Your task to perform on an android device: set default search engine in the chrome app Image 0: 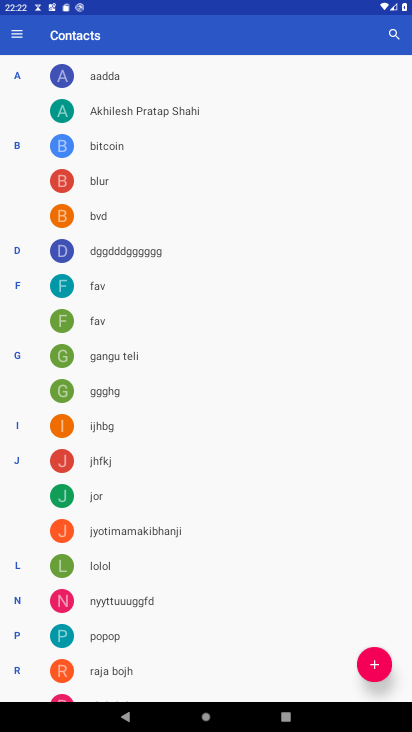
Step 0: press home button
Your task to perform on an android device: set default search engine in the chrome app Image 1: 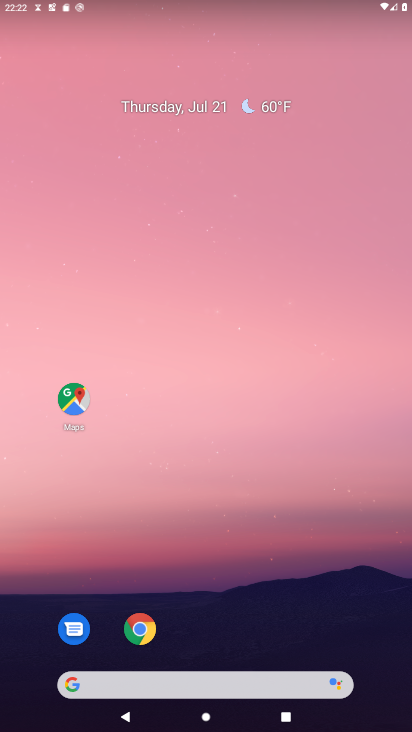
Step 1: drag from (232, 621) to (226, 392)
Your task to perform on an android device: set default search engine in the chrome app Image 2: 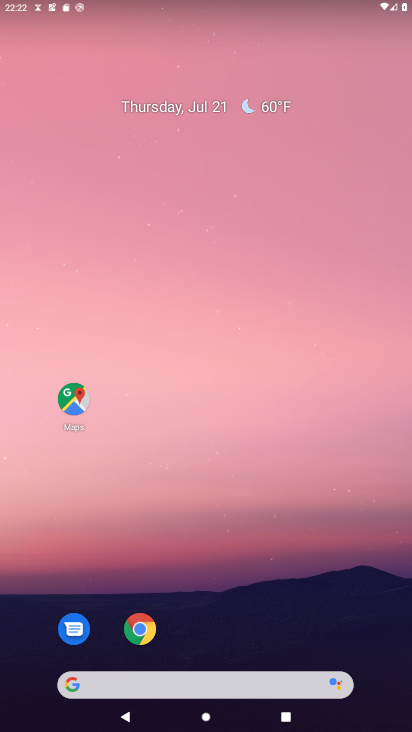
Step 2: drag from (198, 666) to (259, 79)
Your task to perform on an android device: set default search engine in the chrome app Image 3: 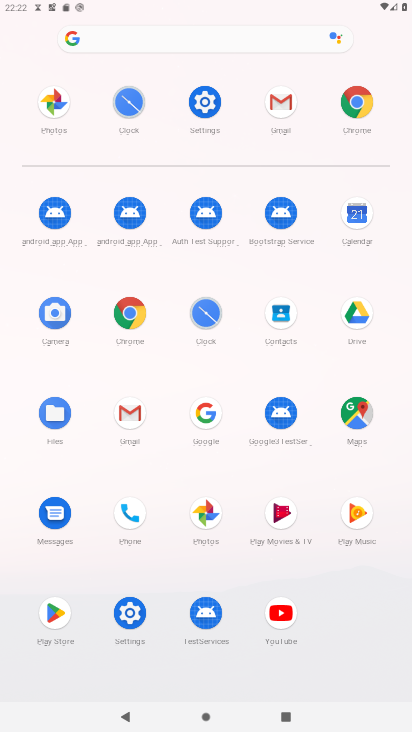
Step 3: click (355, 99)
Your task to perform on an android device: set default search engine in the chrome app Image 4: 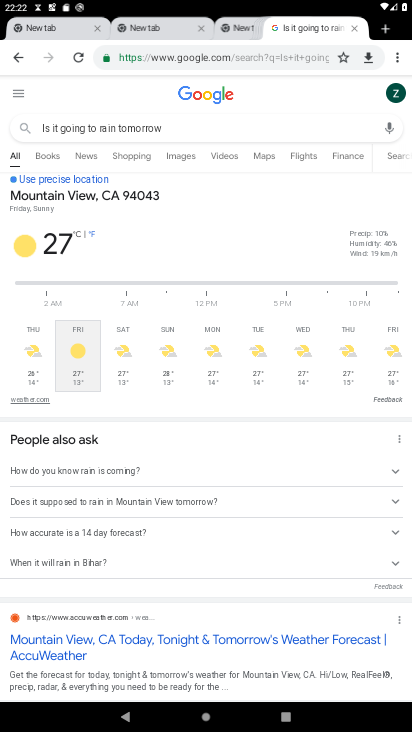
Step 4: click (400, 56)
Your task to perform on an android device: set default search engine in the chrome app Image 5: 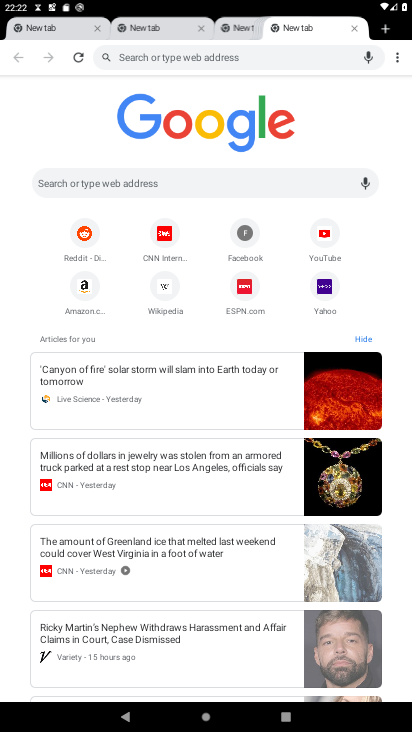
Step 5: click (400, 56)
Your task to perform on an android device: set default search engine in the chrome app Image 6: 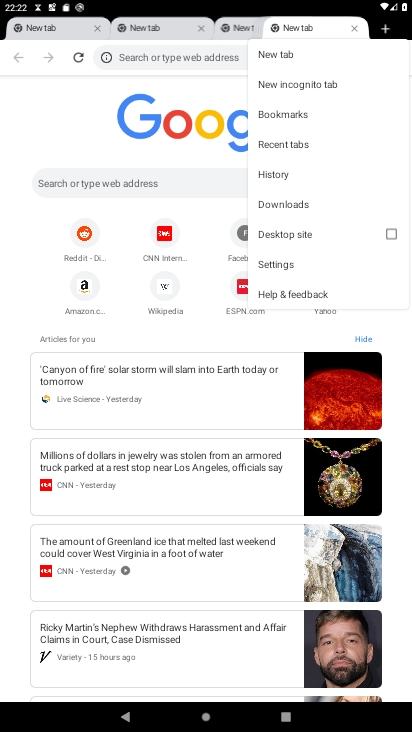
Step 6: click (279, 255)
Your task to perform on an android device: set default search engine in the chrome app Image 7: 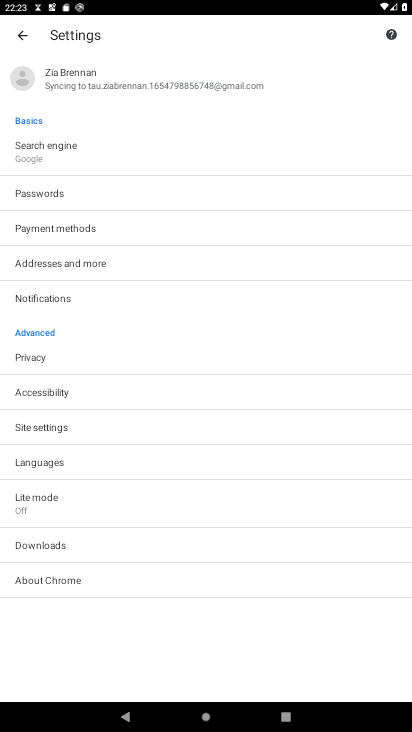
Step 7: click (76, 152)
Your task to perform on an android device: set default search engine in the chrome app Image 8: 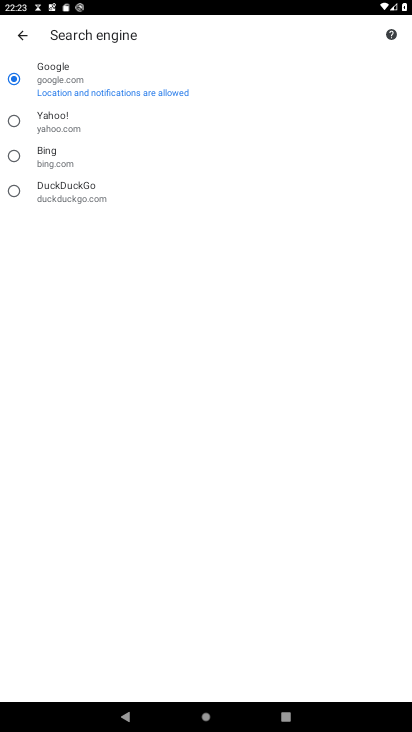
Step 8: click (43, 156)
Your task to perform on an android device: set default search engine in the chrome app Image 9: 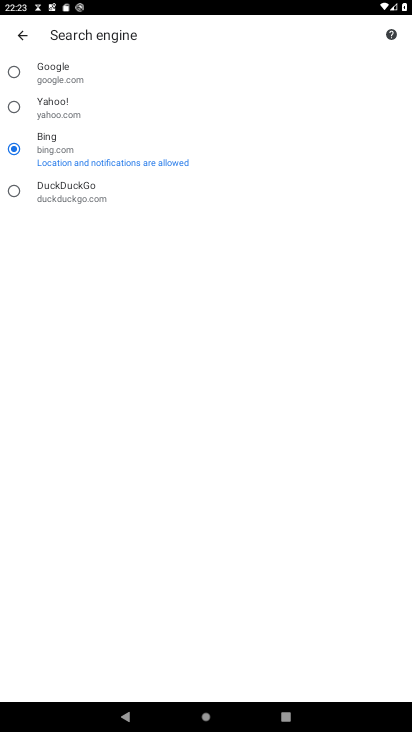
Step 9: task complete